Your task to perform on an android device: install app "Google Duo" Image 0: 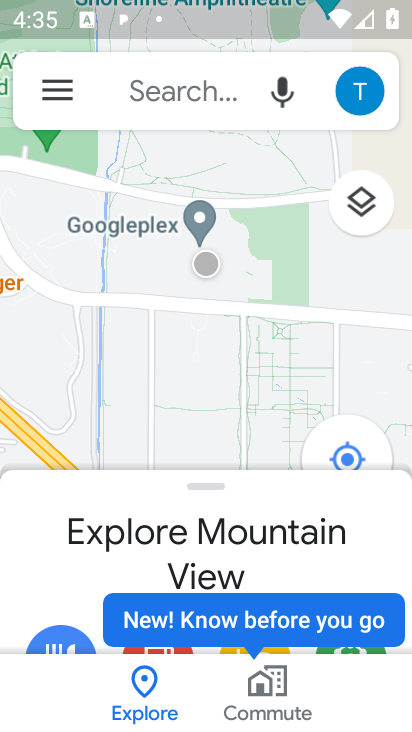
Step 0: press home button
Your task to perform on an android device: install app "Google Duo" Image 1: 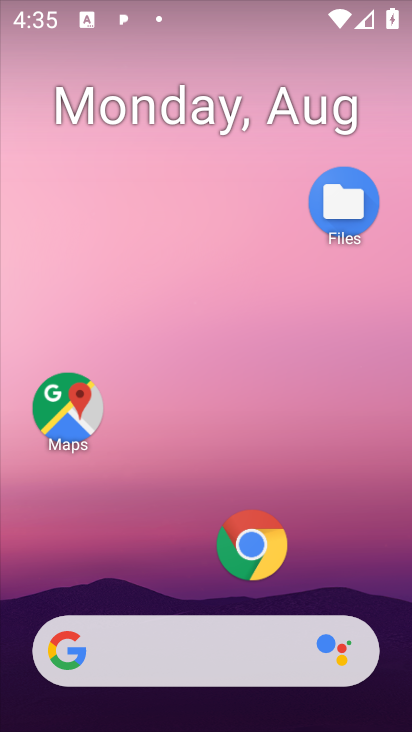
Step 1: drag from (179, 576) to (281, 1)
Your task to perform on an android device: install app "Google Duo" Image 2: 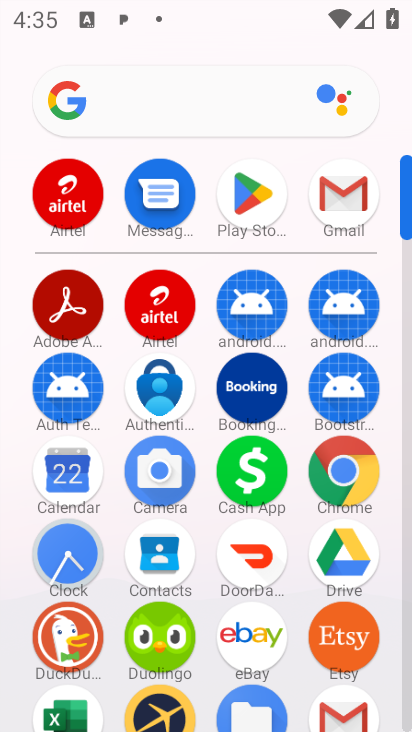
Step 2: click (265, 190)
Your task to perform on an android device: install app "Google Duo" Image 3: 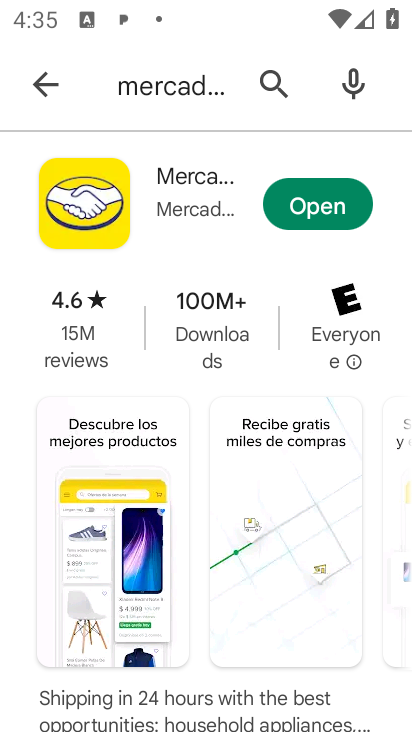
Step 3: click (274, 72)
Your task to perform on an android device: install app "Google Duo" Image 4: 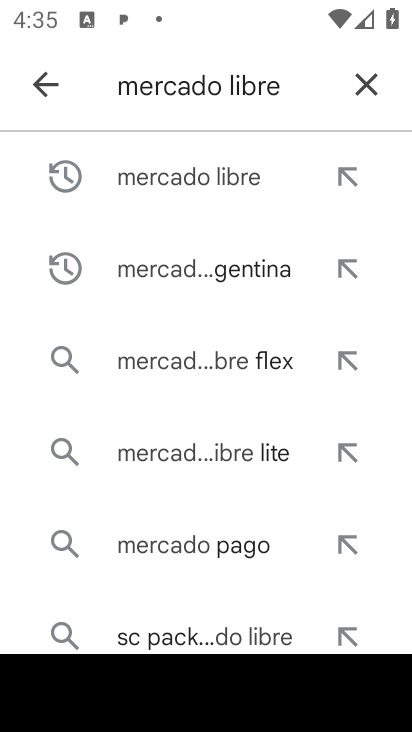
Step 4: click (374, 87)
Your task to perform on an android device: install app "Google Duo" Image 5: 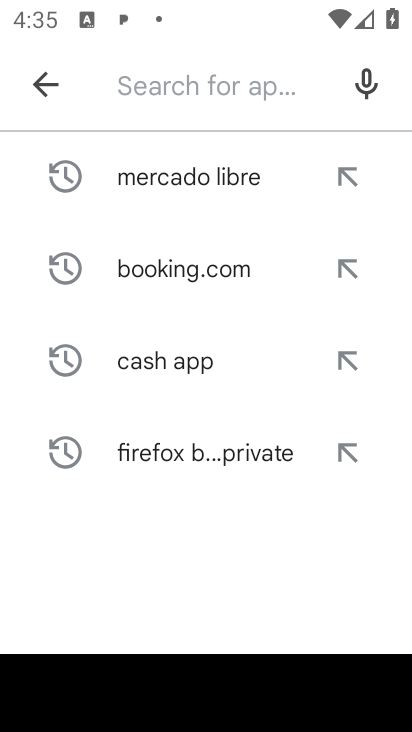
Step 5: click (144, 77)
Your task to perform on an android device: install app "Google Duo" Image 6: 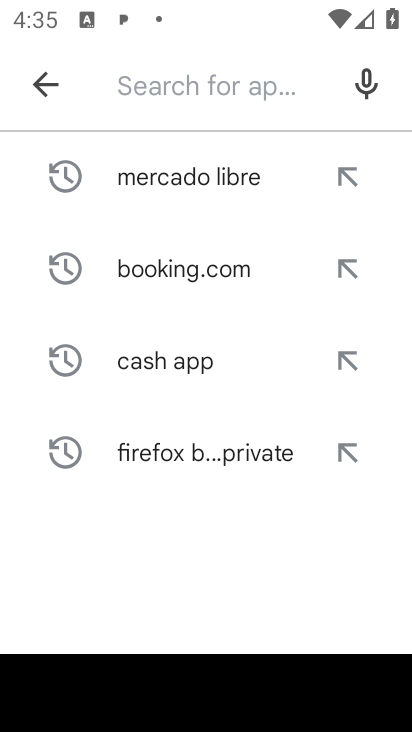
Step 6: type "Google Duo"
Your task to perform on an android device: install app "Google Duo" Image 7: 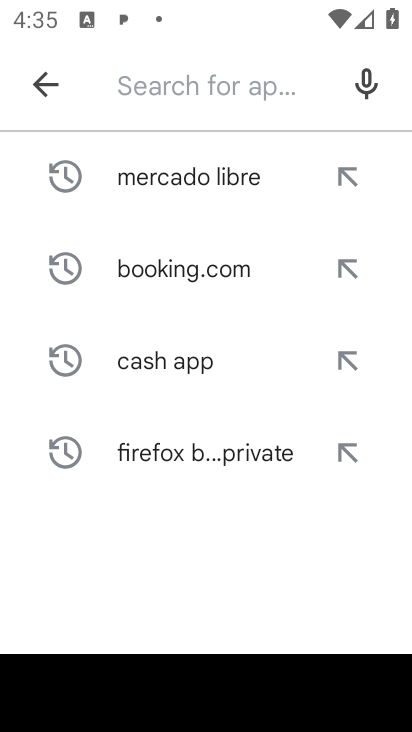
Step 7: click (302, 584)
Your task to perform on an android device: install app "Google Duo" Image 8: 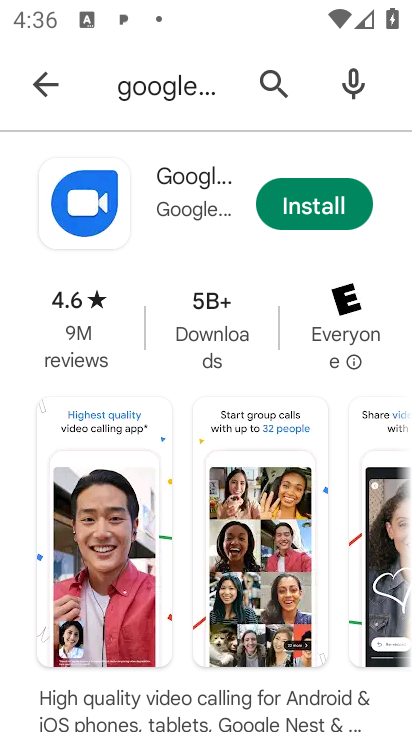
Step 8: click (331, 210)
Your task to perform on an android device: install app "Google Duo" Image 9: 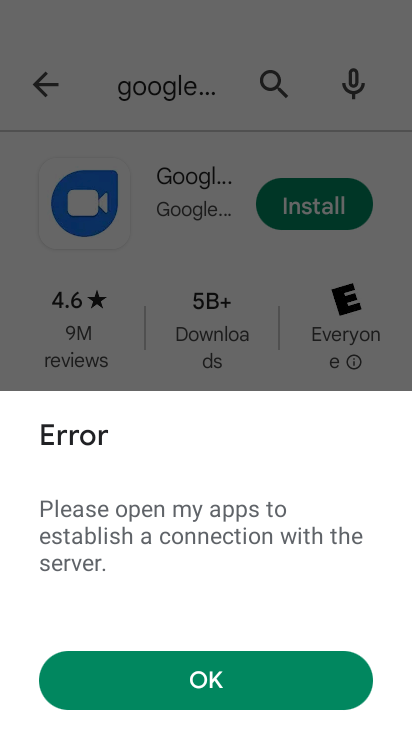
Step 9: click (259, 669)
Your task to perform on an android device: install app "Google Duo" Image 10: 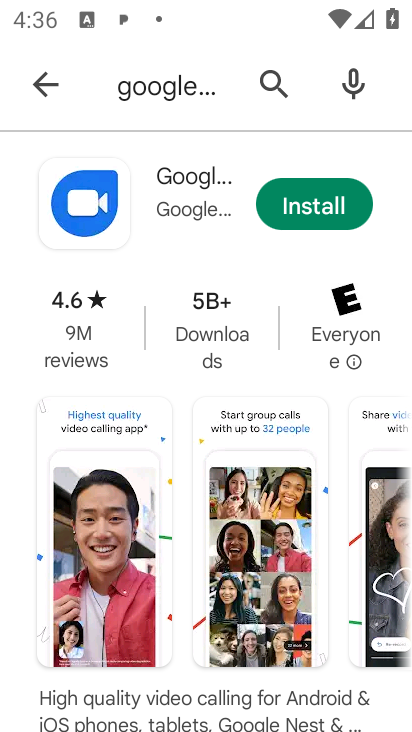
Step 10: task complete